Your task to perform on an android device: open app "Move to iOS" (install if not already installed) Image 0: 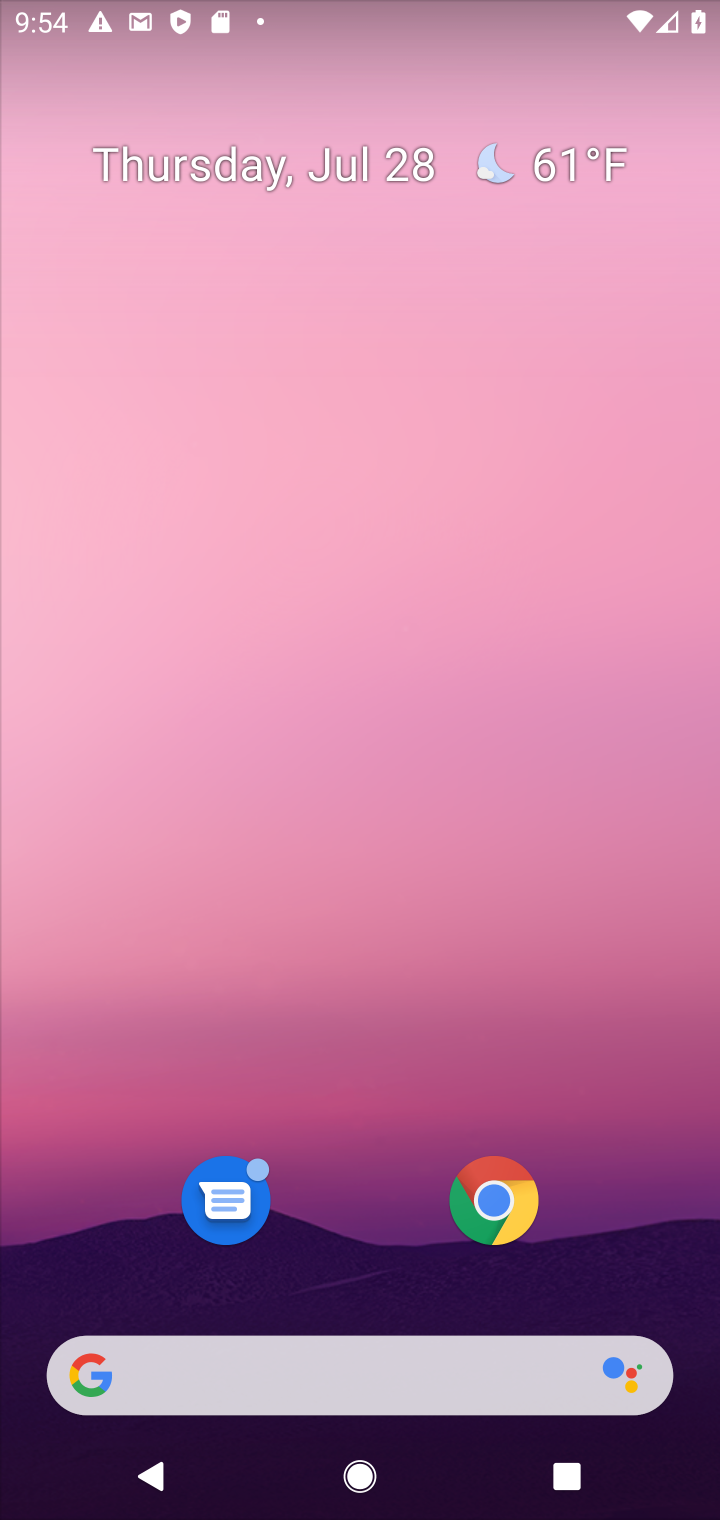
Step 0: drag from (410, 1312) to (449, 217)
Your task to perform on an android device: open app "Move to iOS" (install if not already installed) Image 1: 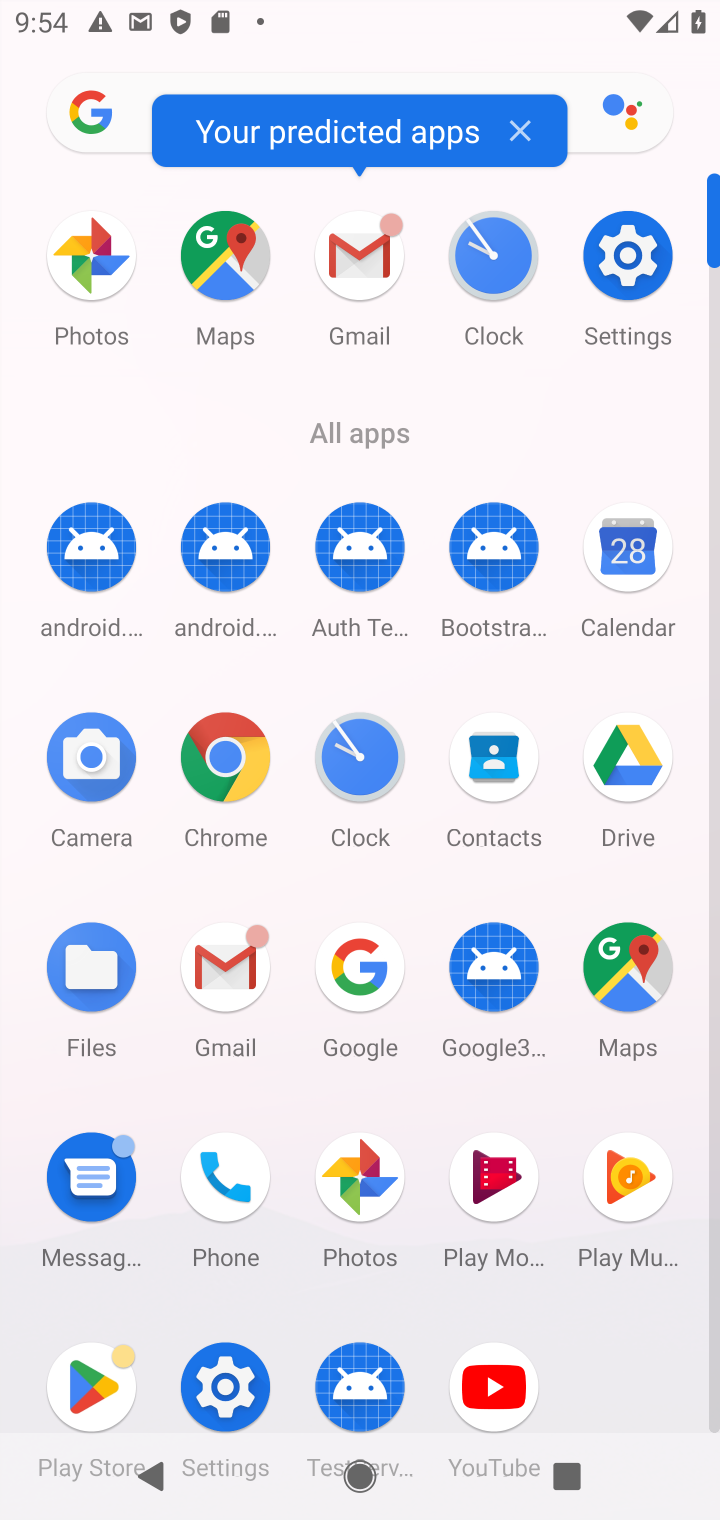
Step 1: click (91, 1383)
Your task to perform on an android device: open app "Move to iOS" (install if not already installed) Image 2: 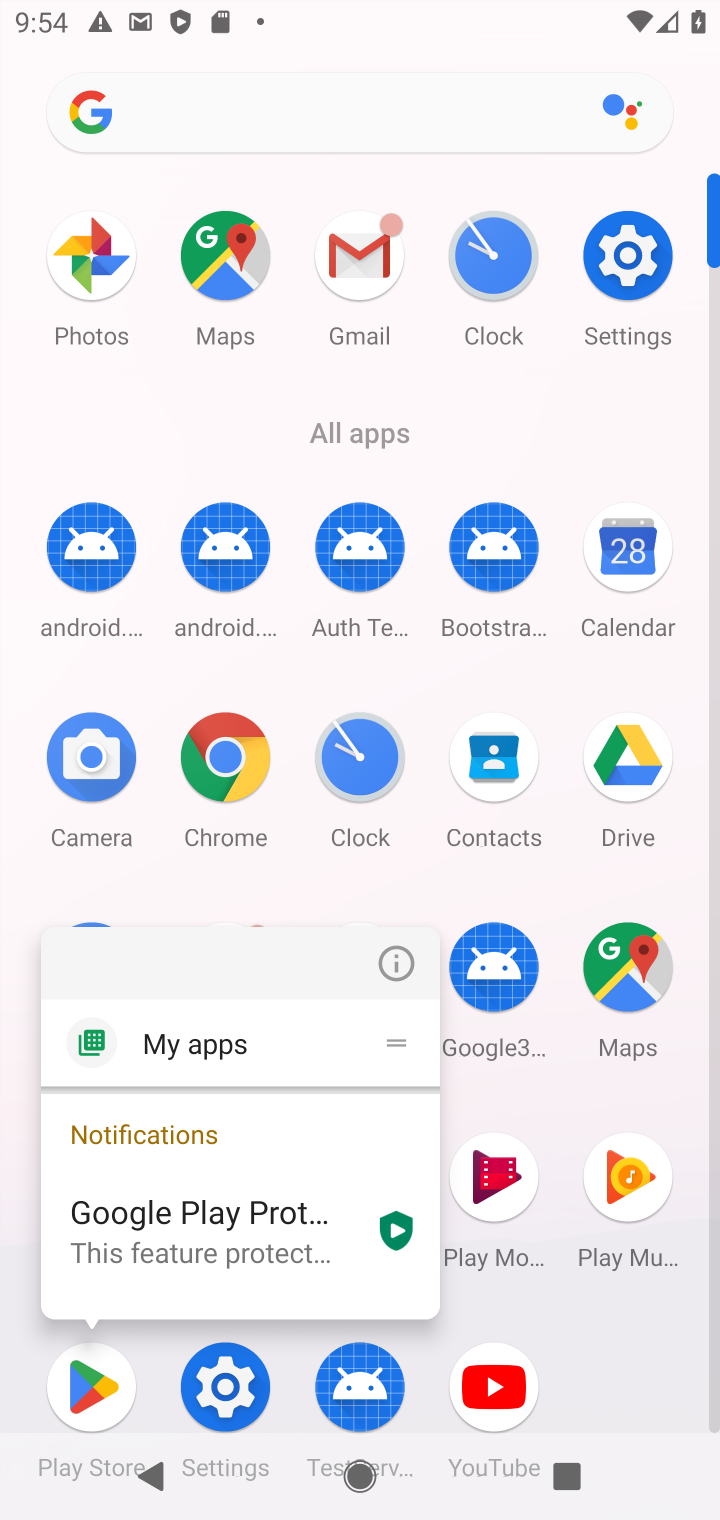
Step 2: click (91, 1383)
Your task to perform on an android device: open app "Move to iOS" (install if not already installed) Image 3: 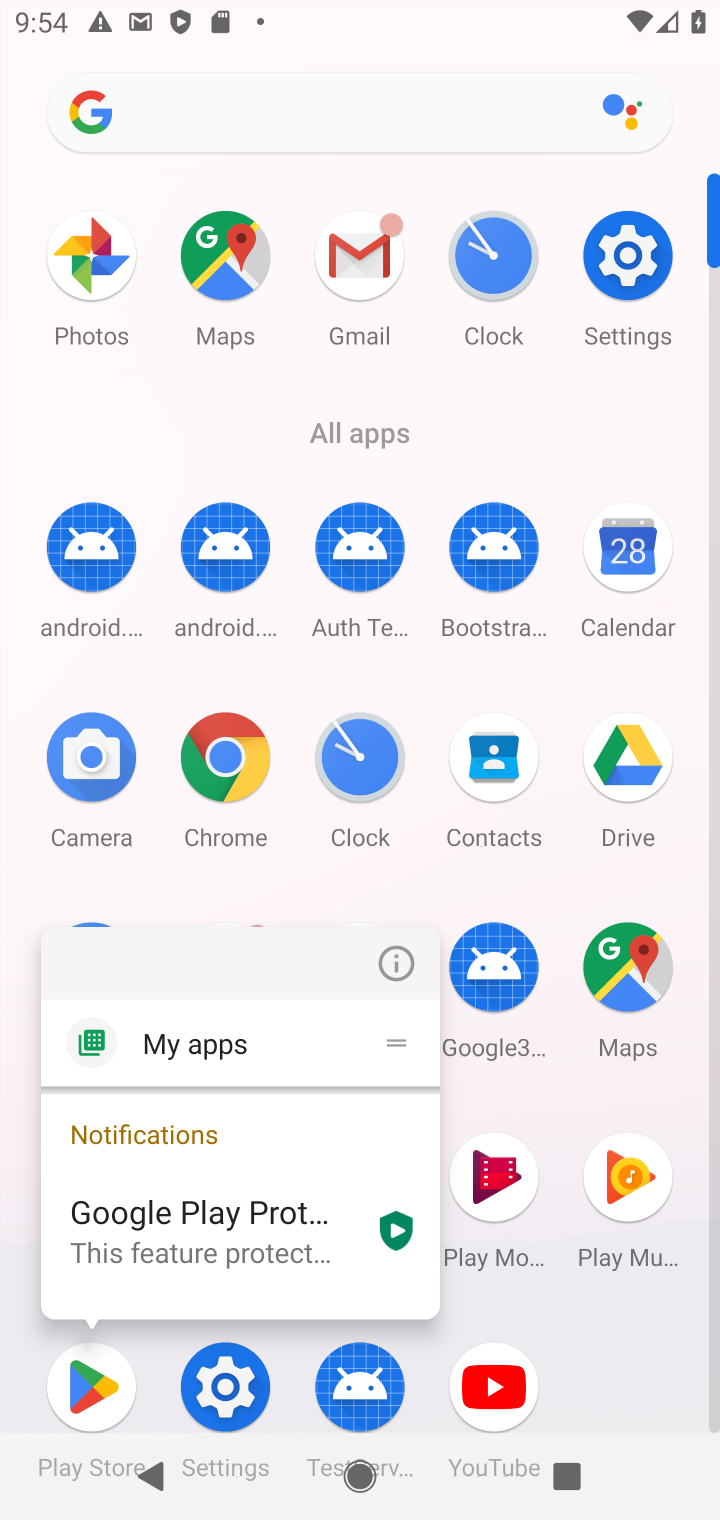
Step 3: click (91, 1387)
Your task to perform on an android device: open app "Move to iOS" (install if not already installed) Image 4: 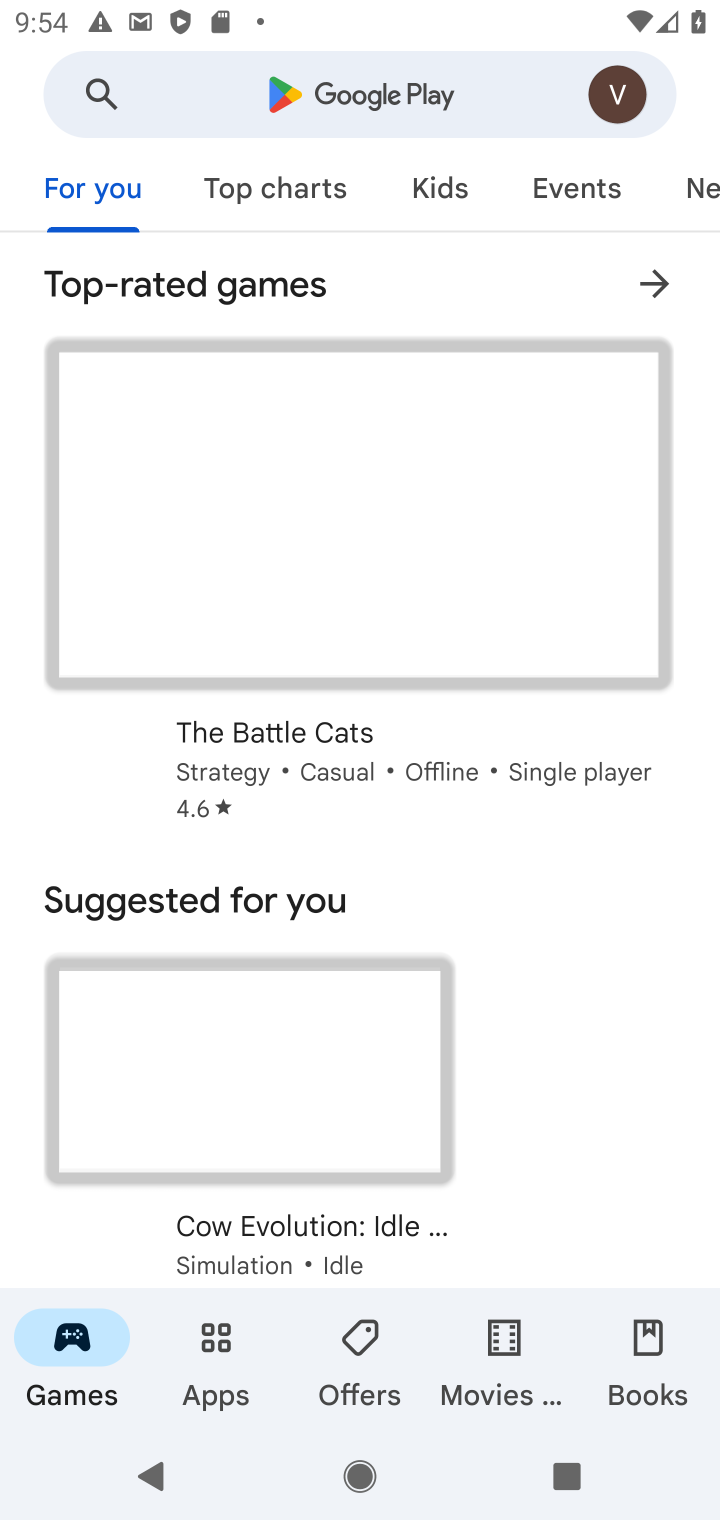
Step 4: click (365, 81)
Your task to perform on an android device: open app "Move to iOS" (install if not already installed) Image 5: 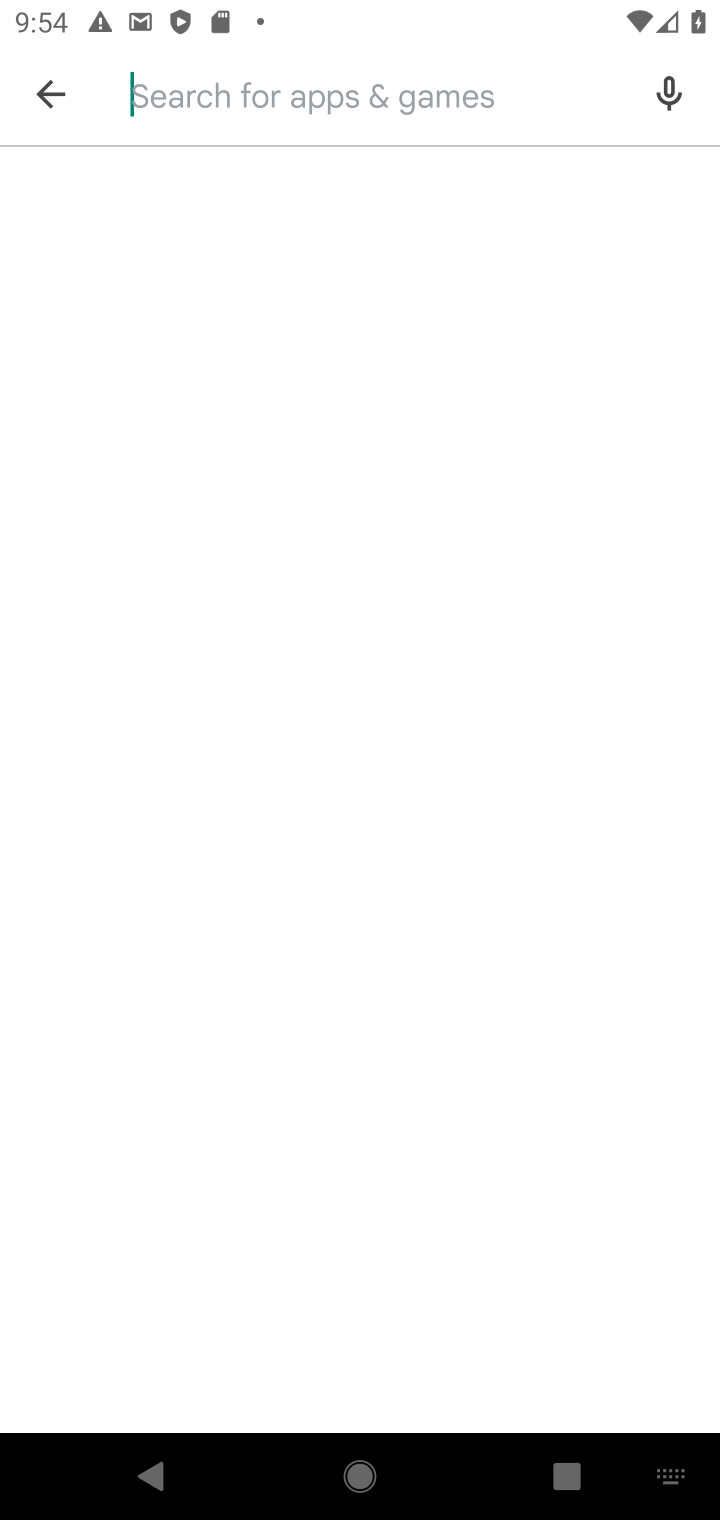
Step 5: type "Move to iOS"
Your task to perform on an android device: open app "Move to iOS" (install if not already installed) Image 6: 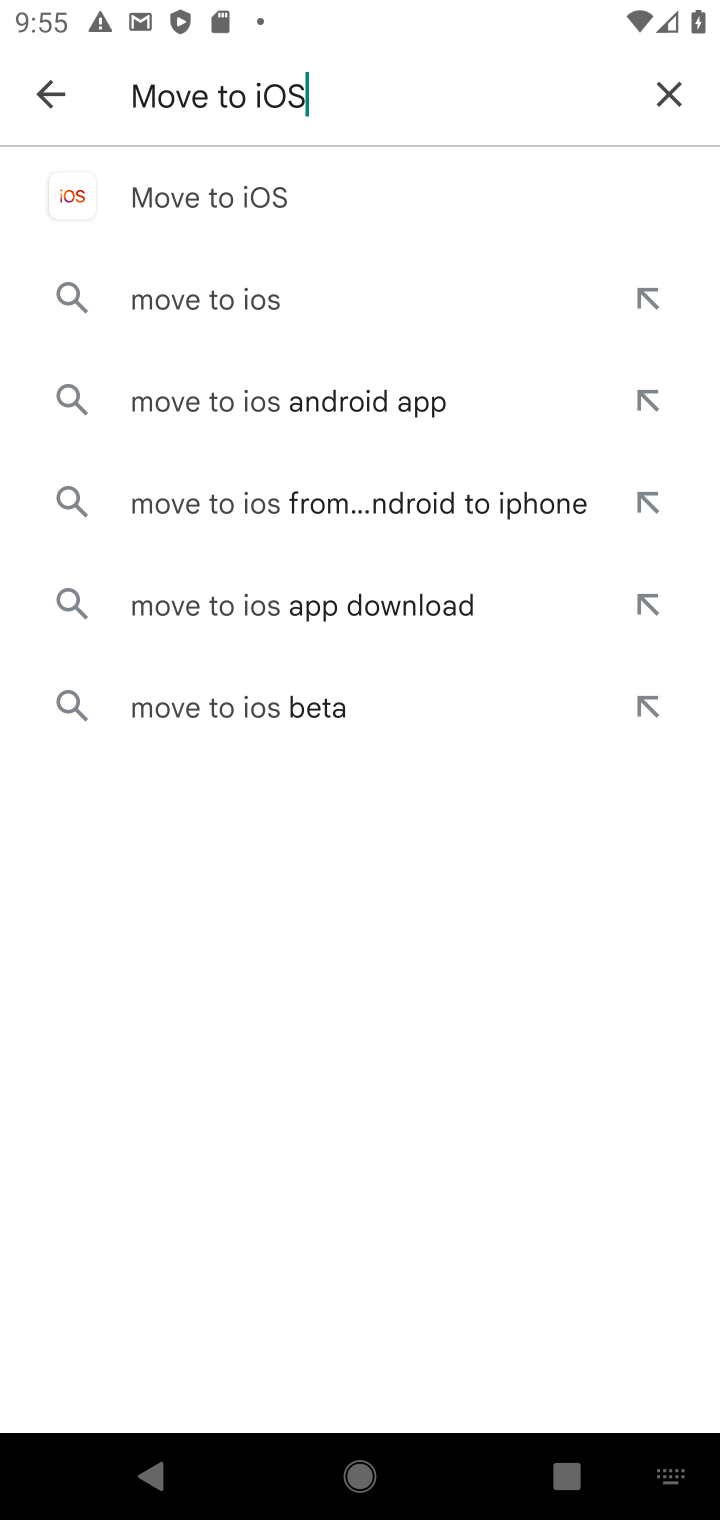
Step 6: click (265, 190)
Your task to perform on an android device: open app "Move to iOS" (install if not already installed) Image 7: 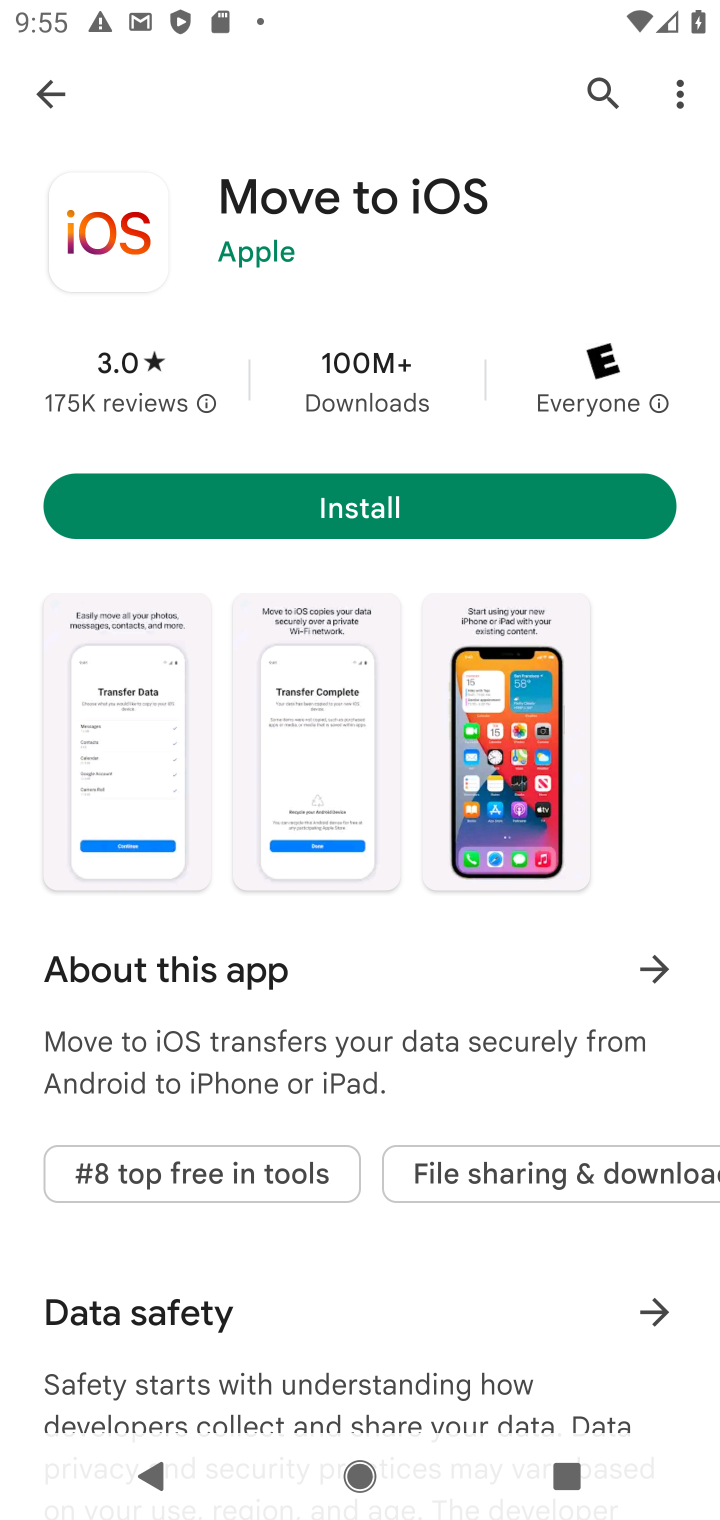
Step 7: click (334, 509)
Your task to perform on an android device: open app "Move to iOS" (install if not already installed) Image 8: 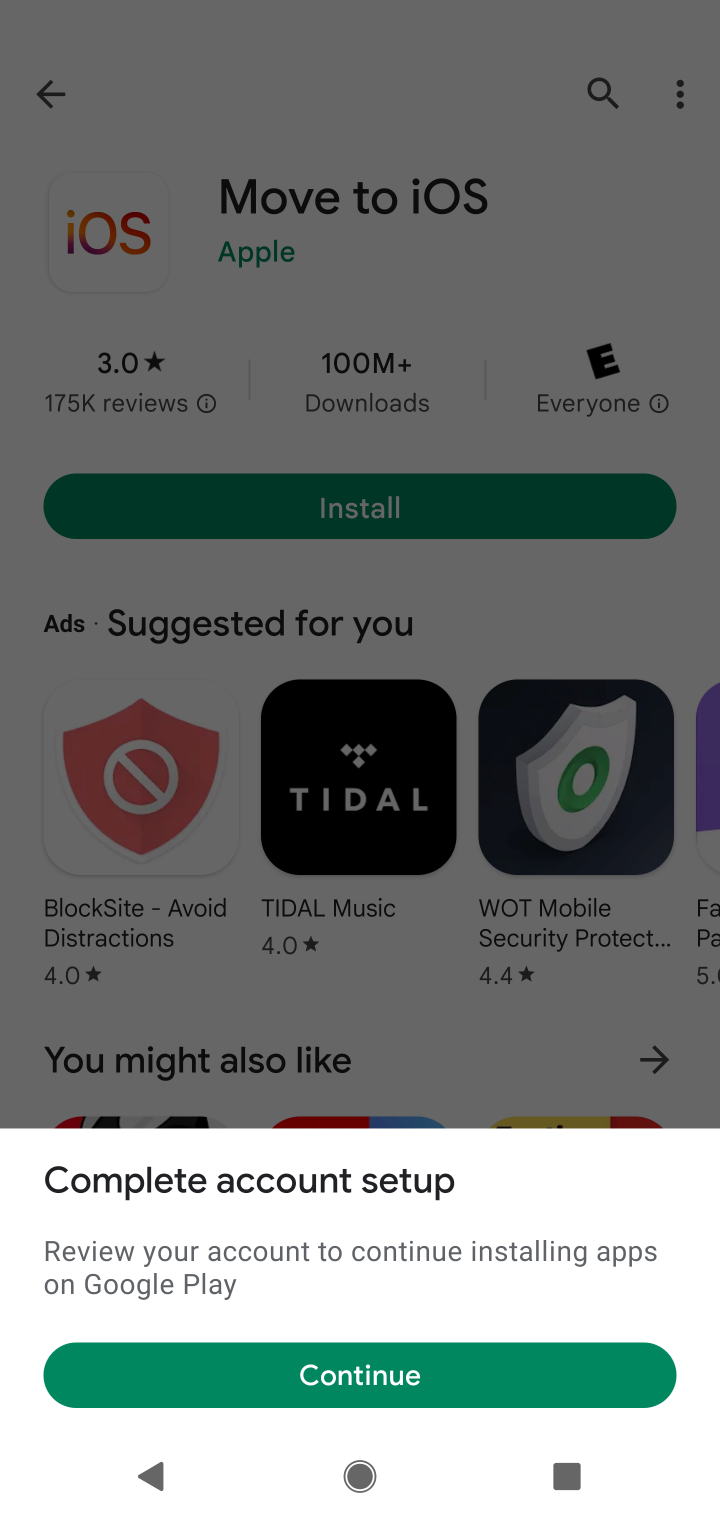
Step 8: click (376, 1386)
Your task to perform on an android device: open app "Move to iOS" (install if not already installed) Image 9: 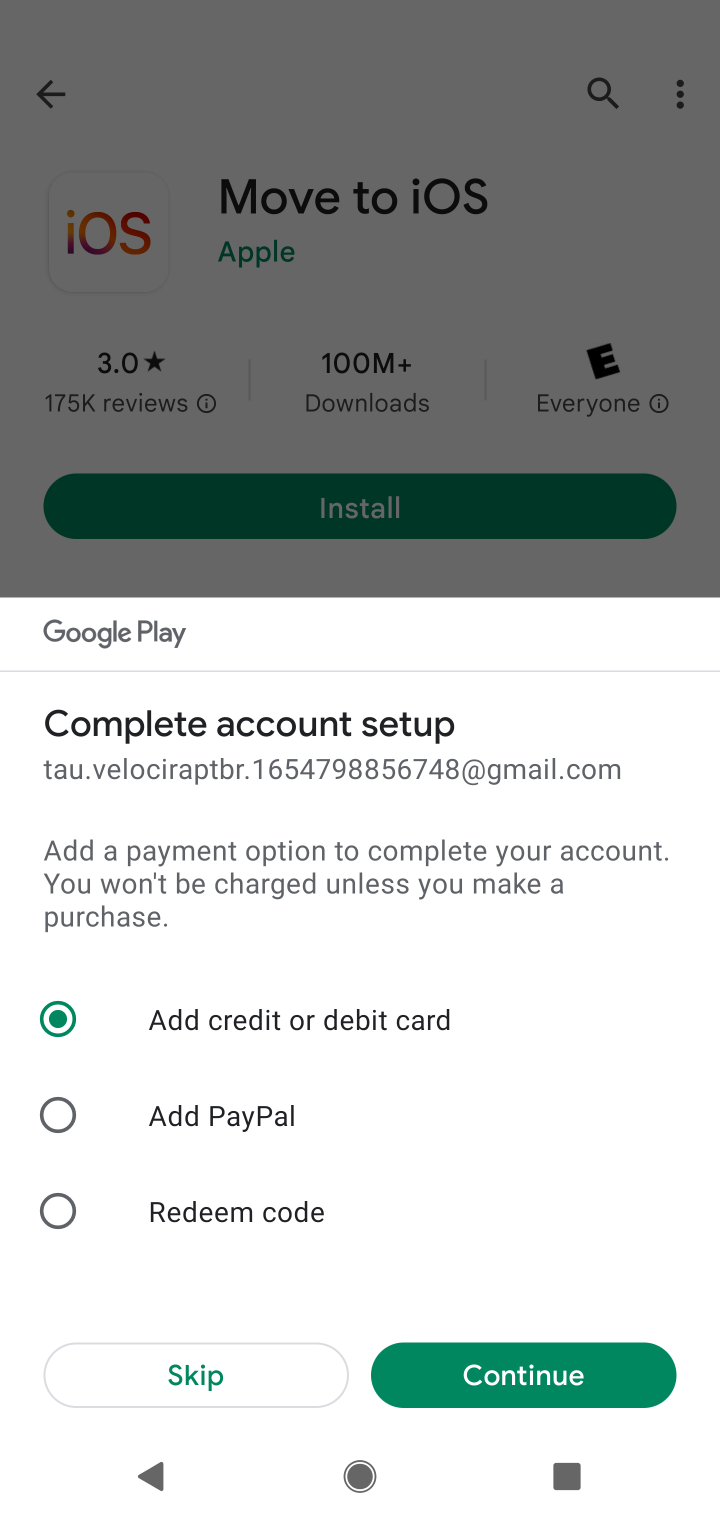
Step 9: click (248, 1370)
Your task to perform on an android device: open app "Move to iOS" (install if not already installed) Image 10: 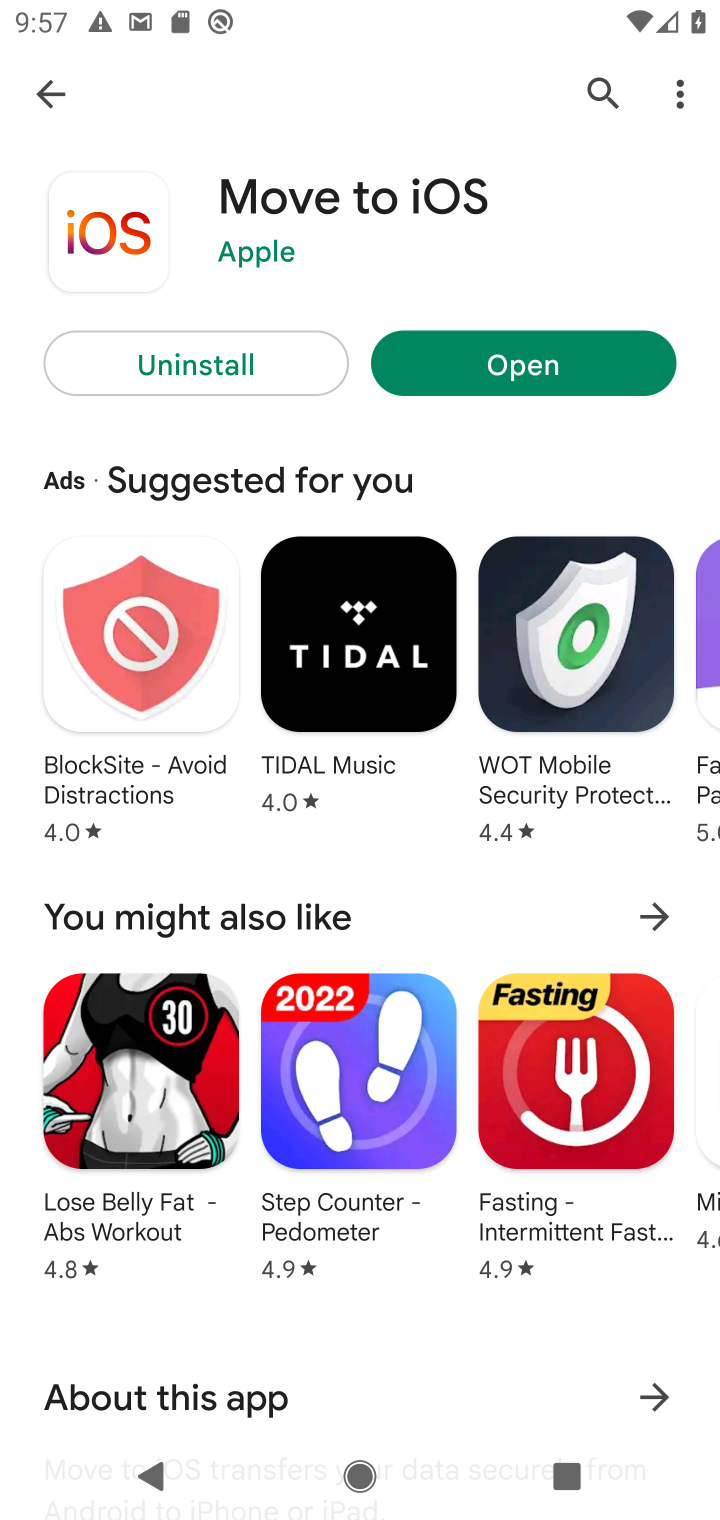
Step 10: click (523, 354)
Your task to perform on an android device: open app "Move to iOS" (install if not already installed) Image 11: 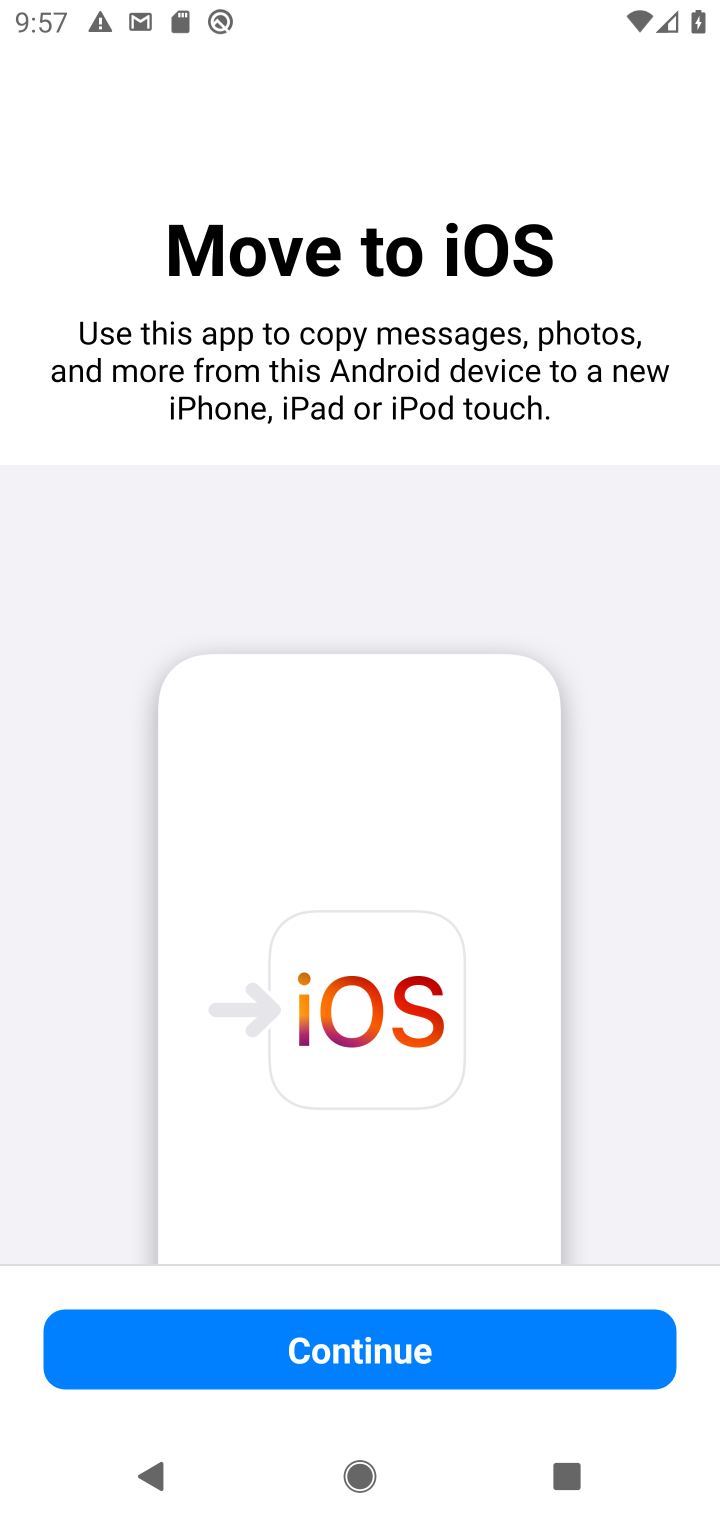
Step 11: task complete